Your task to perform on an android device: Open Google Chrome and open the bookmarks view Image 0: 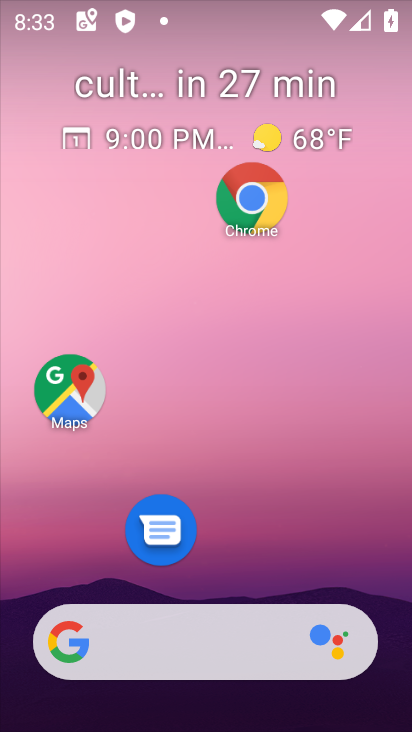
Step 0: click (254, 226)
Your task to perform on an android device: Open Google Chrome and open the bookmarks view Image 1: 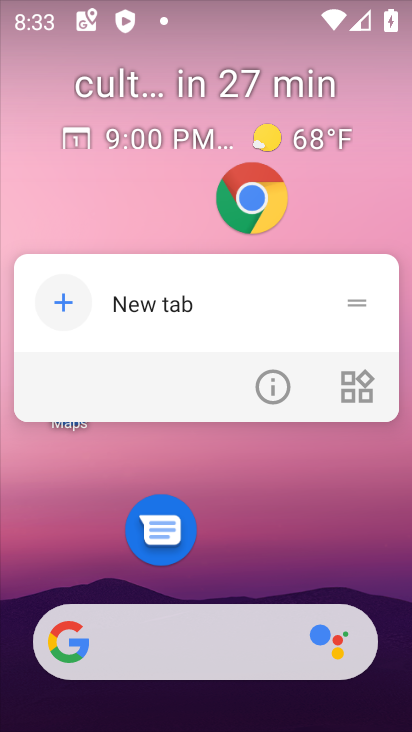
Step 1: click (254, 226)
Your task to perform on an android device: Open Google Chrome and open the bookmarks view Image 2: 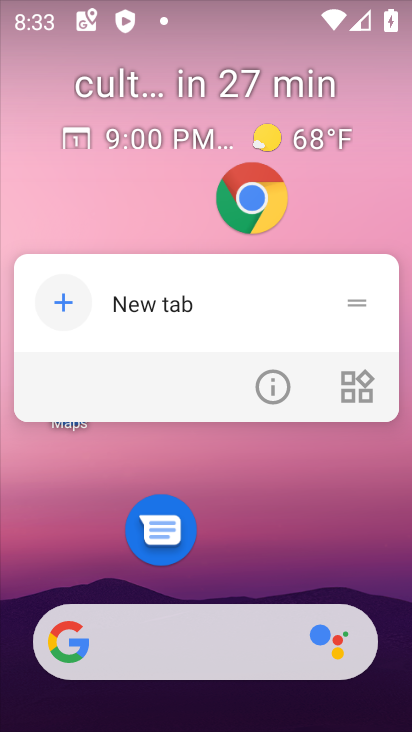
Step 2: click (254, 226)
Your task to perform on an android device: Open Google Chrome and open the bookmarks view Image 3: 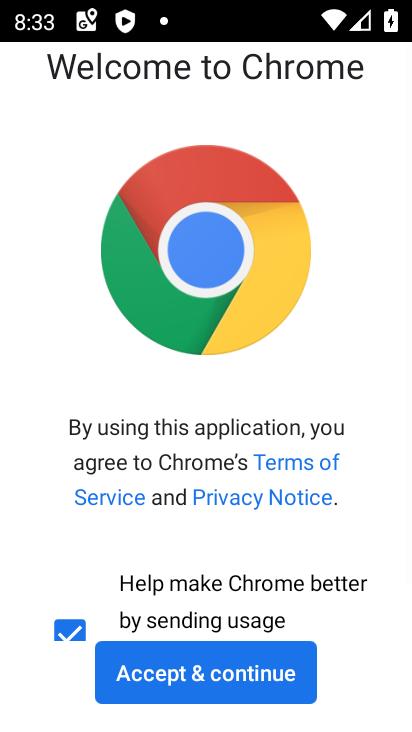
Step 3: click (195, 680)
Your task to perform on an android device: Open Google Chrome and open the bookmarks view Image 4: 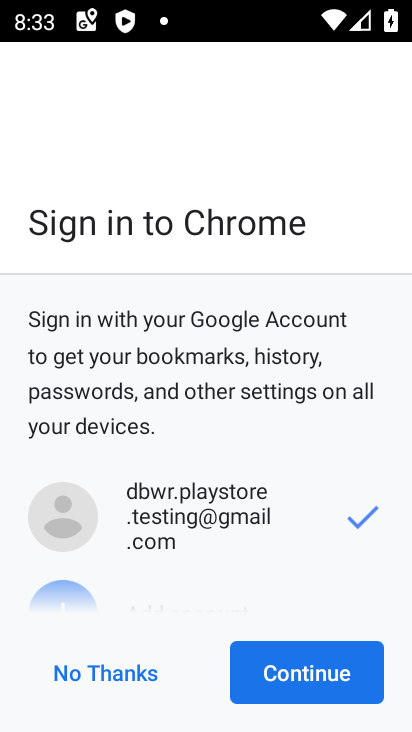
Step 4: click (333, 677)
Your task to perform on an android device: Open Google Chrome and open the bookmarks view Image 5: 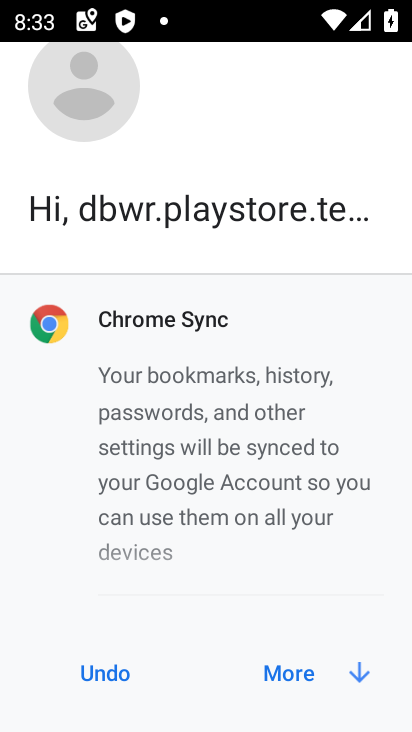
Step 5: click (300, 677)
Your task to perform on an android device: Open Google Chrome and open the bookmarks view Image 6: 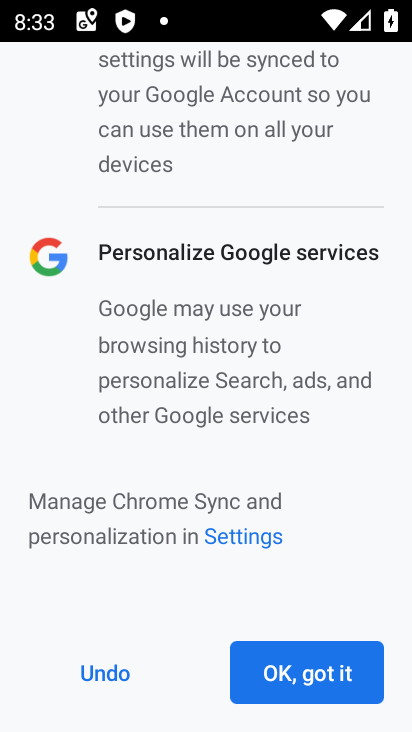
Step 6: click (300, 677)
Your task to perform on an android device: Open Google Chrome and open the bookmarks view Image 7: 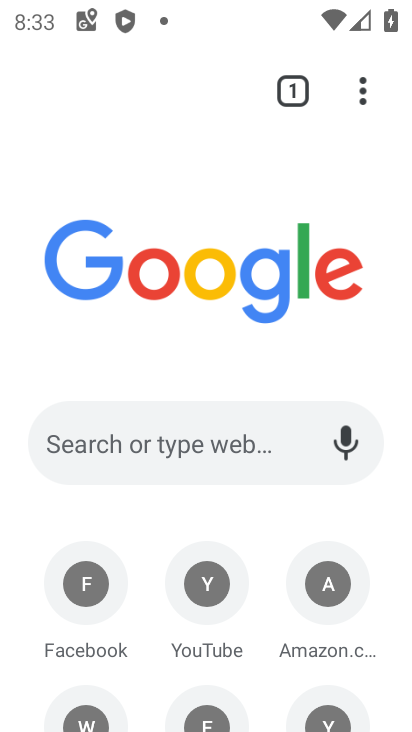
Step 7: task complete